Your task to perform on an android device: Search for sushi restaurants on Maps Image 0: 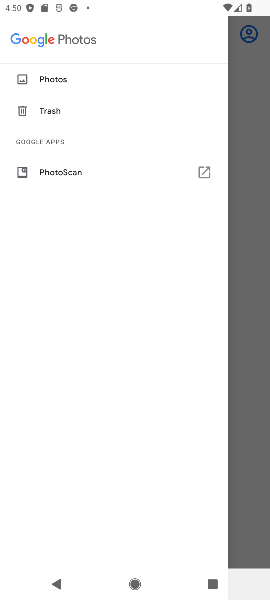
Step 0: press home button
Your task to perform on an android device: Search for sushi restaurants on Maps Image 1: 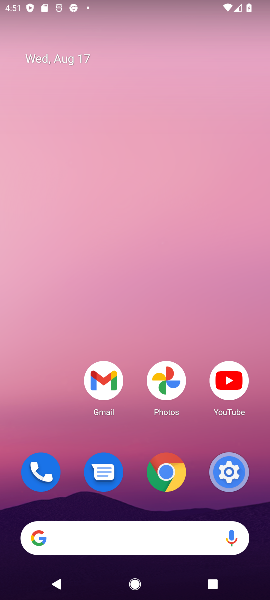
Step 1: drag from (133, 431) to (138, 72)
Your task to perform on an android device: Search for sushi restaurants on Maps Image 2: 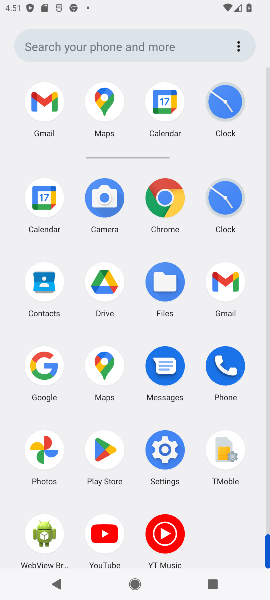
Step 2: click (110, 116)
Your task to perform on an android device: Search for sushi restaurants on Maps Image 3: 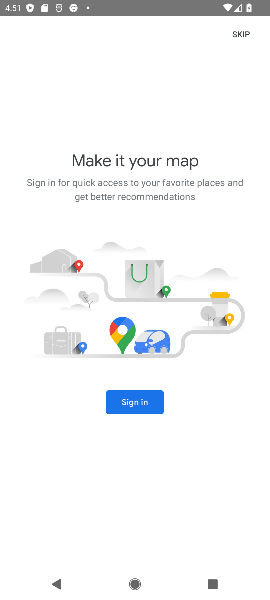
Step 3: click (145, 413)
Your task to perform on an android device: Search for sushi restaurants on Maps Image 4: 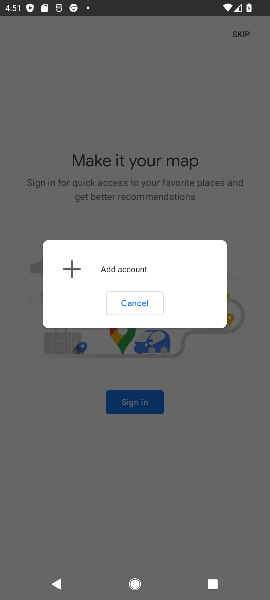
Step 4: click (163, 305)
Your task to perform on an android device: Search for sushi restaurants on Maps Image 5: 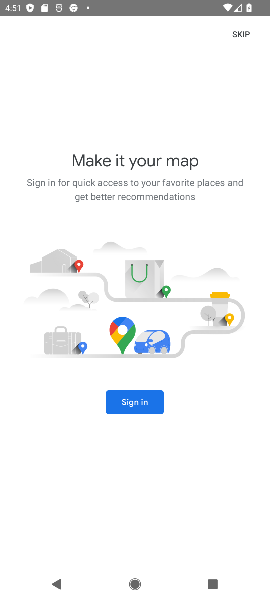
Step 5: task complete